Your task to perform on an android device: Open sound settings Image 0: 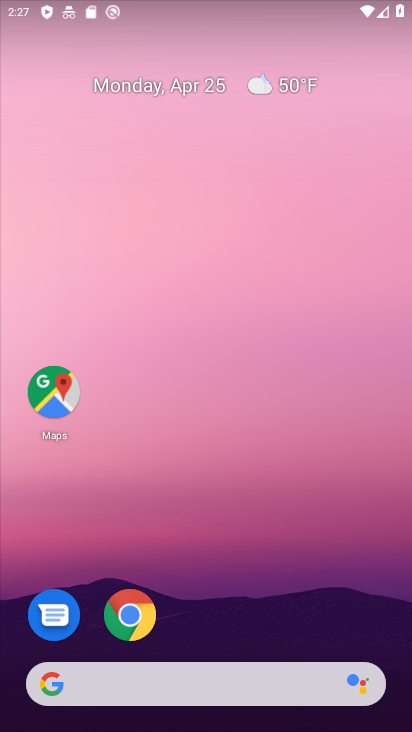
Step 0: drag from (223, 725) to (196, 196)
Your task to perform on an android device: Open sound settings Image 1: 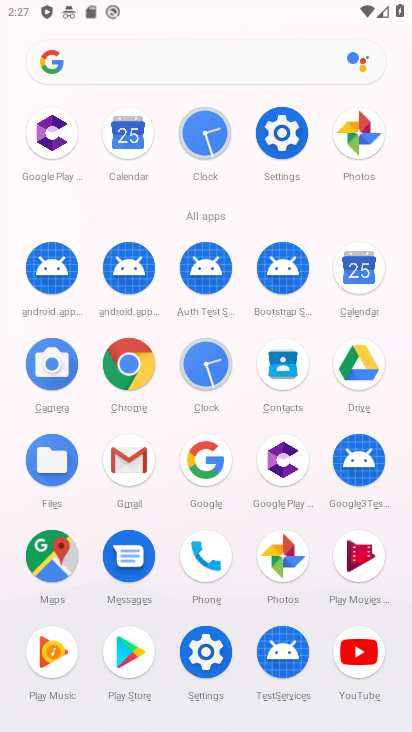
Step 1: click (282, 133)
Your task to perform on an android device: Open sound settings Image 2: 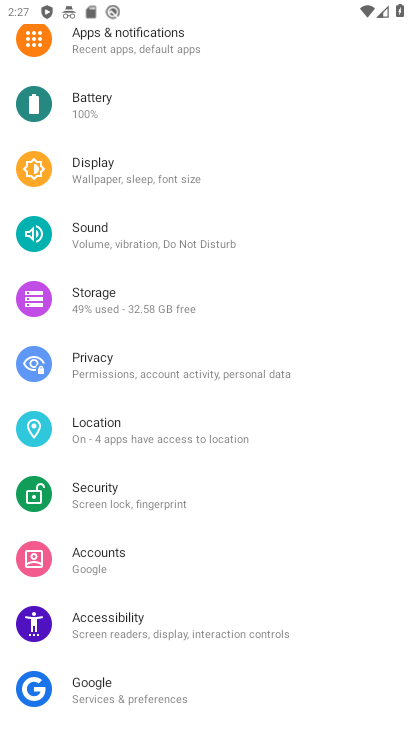
Step 2: click (96, 233)
Your task to perform on an android device: Open sound settings Image 3: 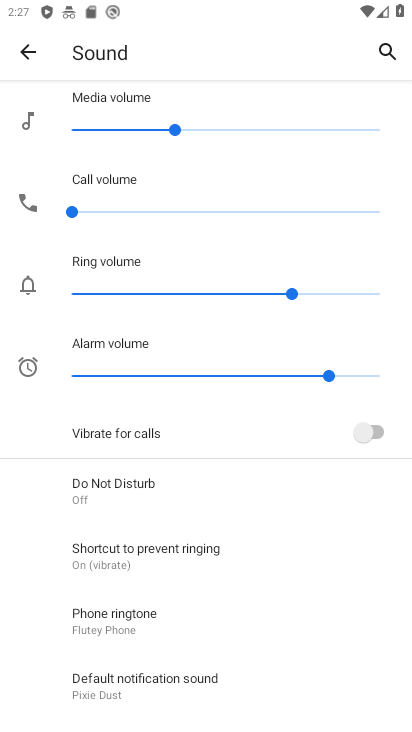
Step 3: task complete